Your task to perform on an android device: see sites visited before in the chrome app Image 0: 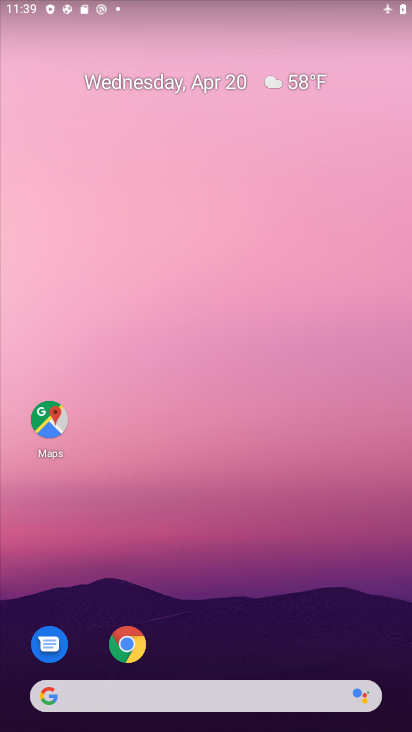
Step 0: drag from (176, 600) to (228, 116)
Your task to perform on an android device: see sites visited before in the chrome app Image 1: 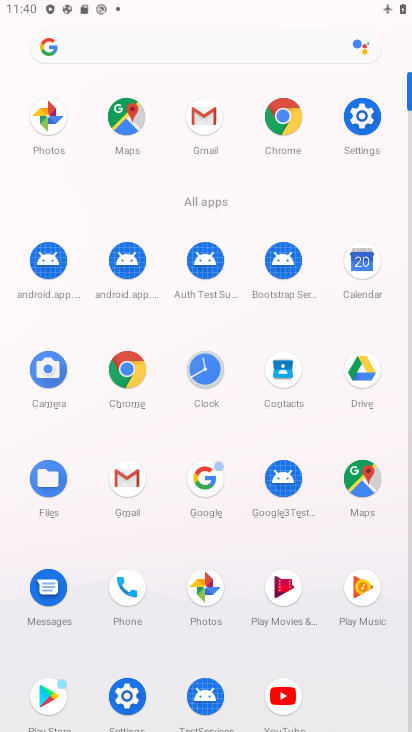
Step 1: click (282, 121)
Your task to perform on an android device: see sites visited before in the chrome app Image 2: 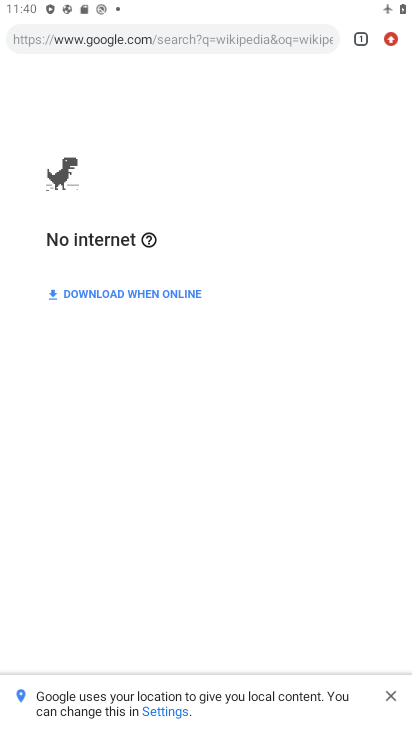
Step 2: task complete